Your task to perform on an android device: check storage Image 0: 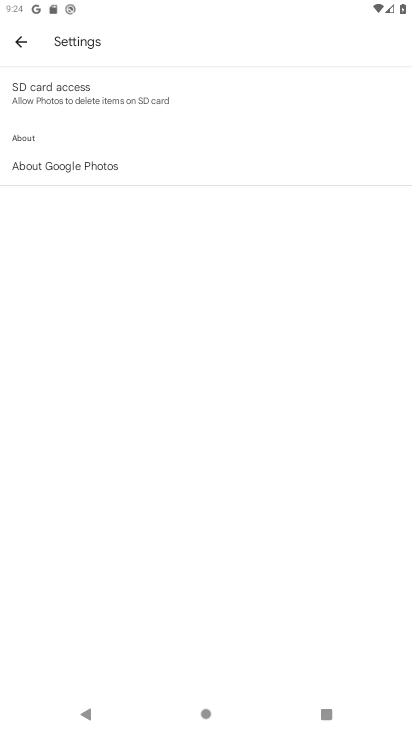
Step 0: press home button
Your task to perform on an android device: check storage Image 1: 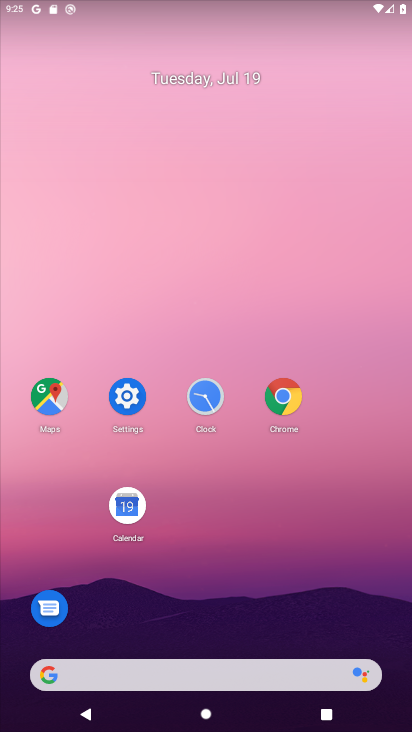
Step 1: click (122, 403)
Your task to perform on an android device: check storage Image 2: 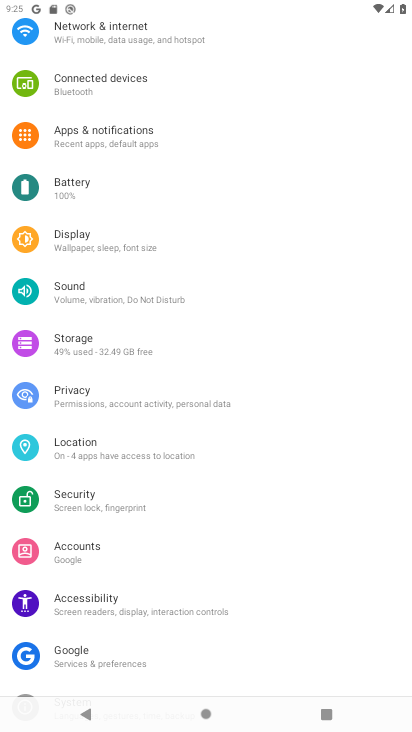
Step 2: drag from (260, 588) to (212, 200)
Your task to perform on an android device: check storage Image 3: 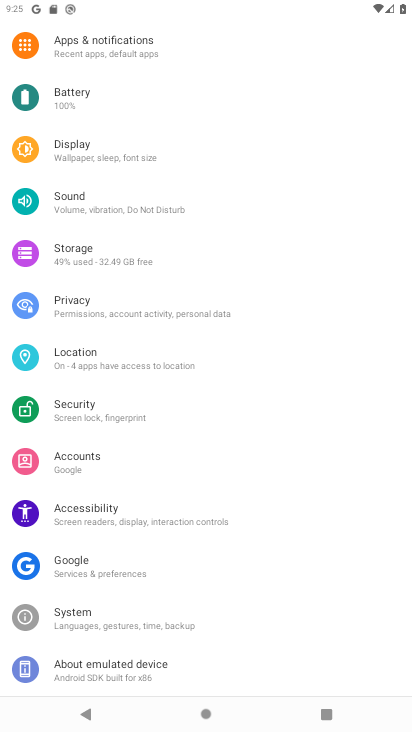
Step 3: click (67, 253)
Your task to perform on an android device: check storage Image 4: 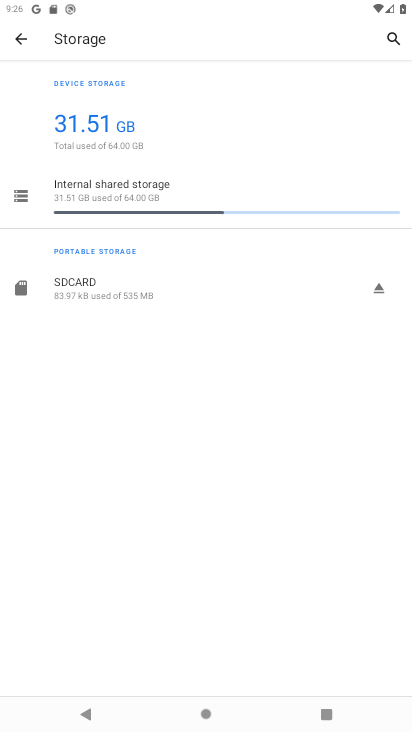
Step 4: task complete